Your task to perform on an android device: Go to Amazon Image 0: 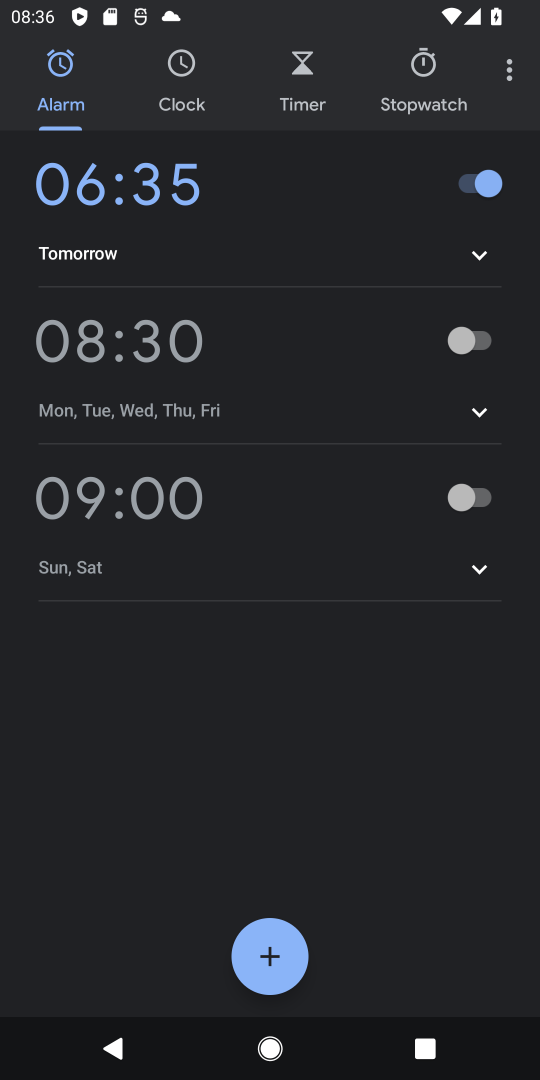
Step 0: press home button
Your task to perform on an android device: Go to Amazon Image 1: 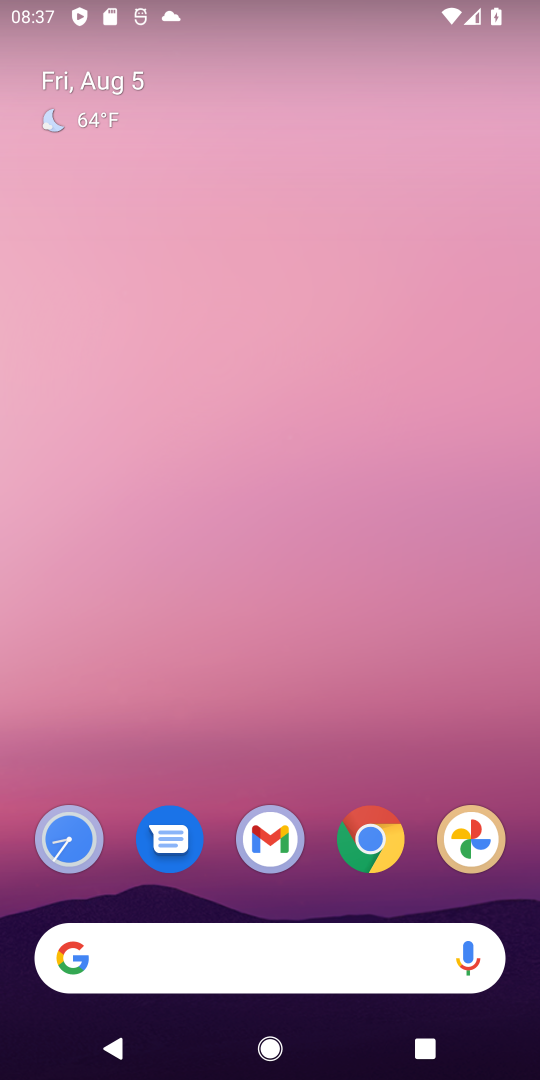
Step 1: drag from (311, 850) to (311, 128)
Your task to perform on an android device: Go to Amazon Image 2: 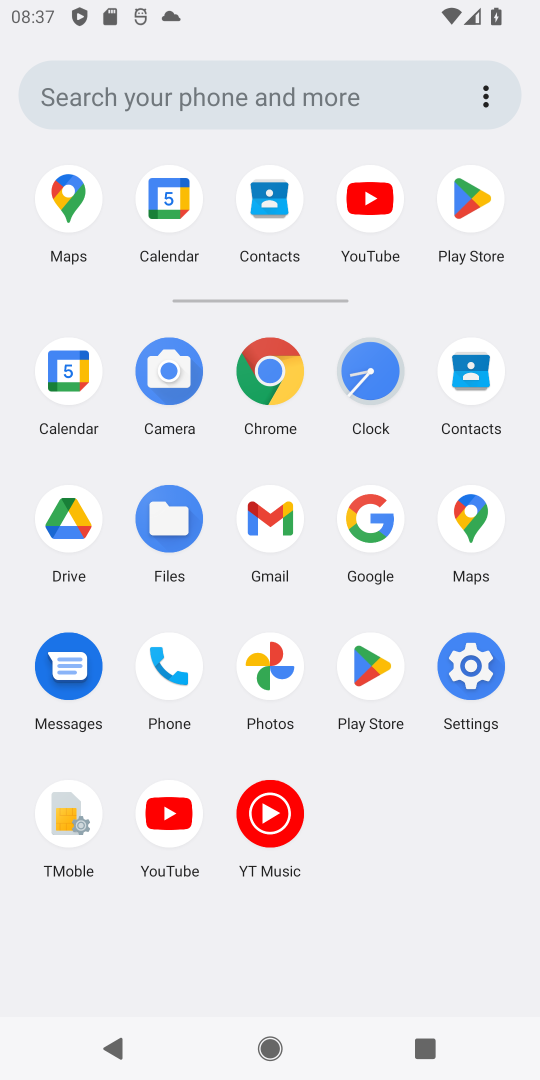
Step 2: click (268, 376)
Your task to perform on an android device: Go to Amazon Image 3: 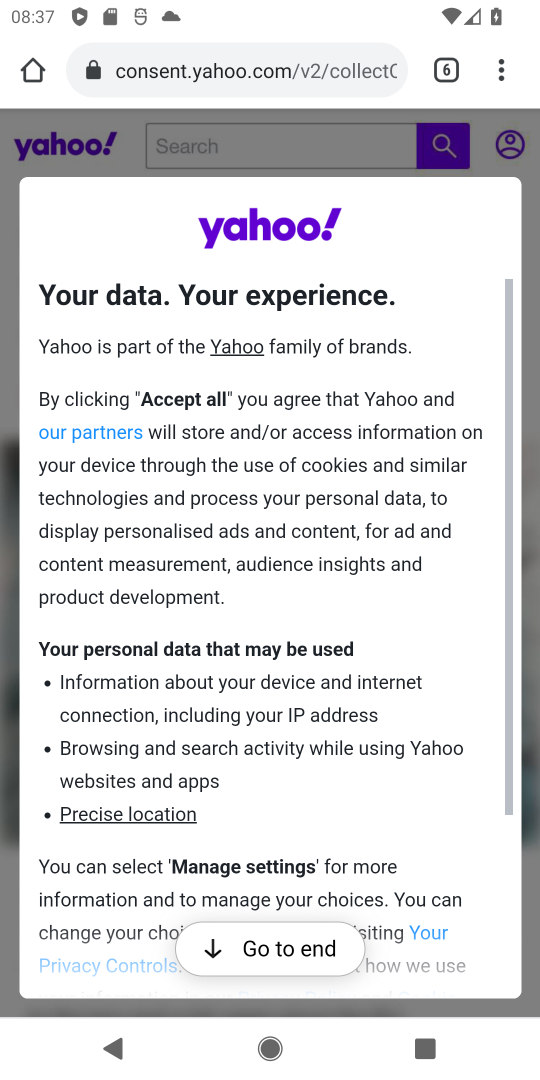
Step 3: click (495, 75)
Your task to perform on an android device: Go to Amazon Image 4: 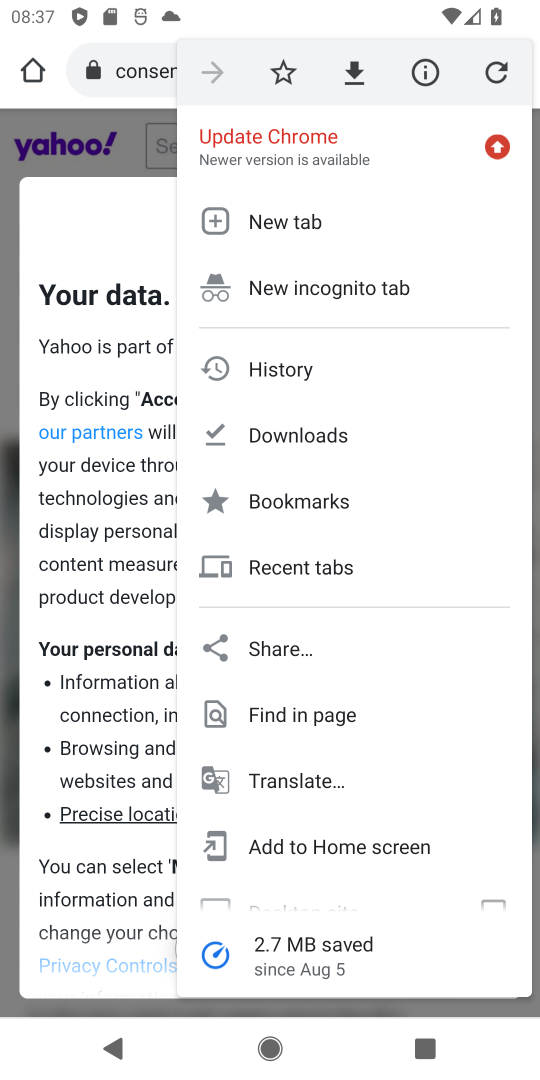
Step 4: click (279, 220)
Your task to perform on an android device: Go to Amazon Image 5: 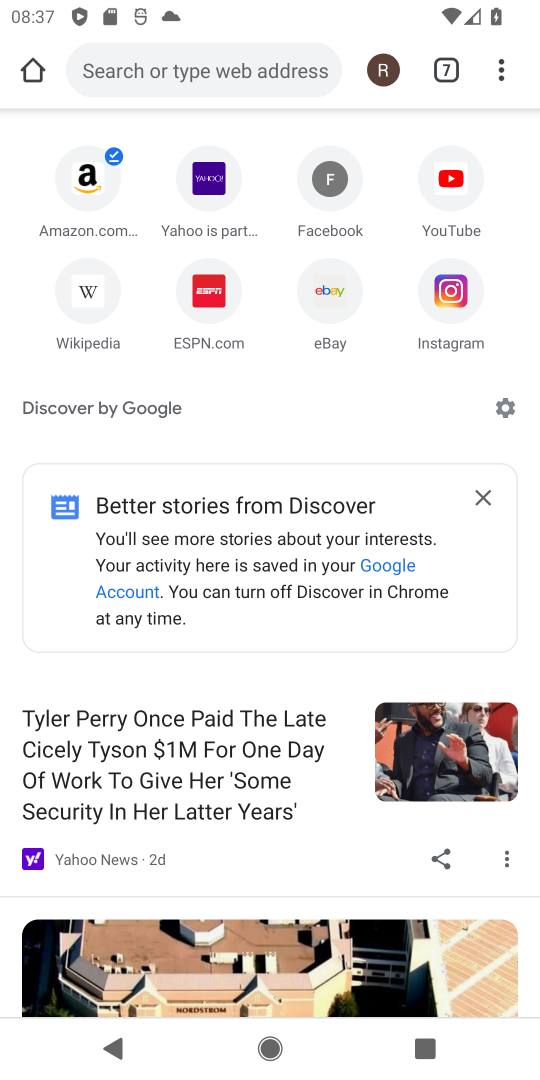
Step 5: click (82, 178)
Your task to perform on an android device: Go to Amazon Image 6: 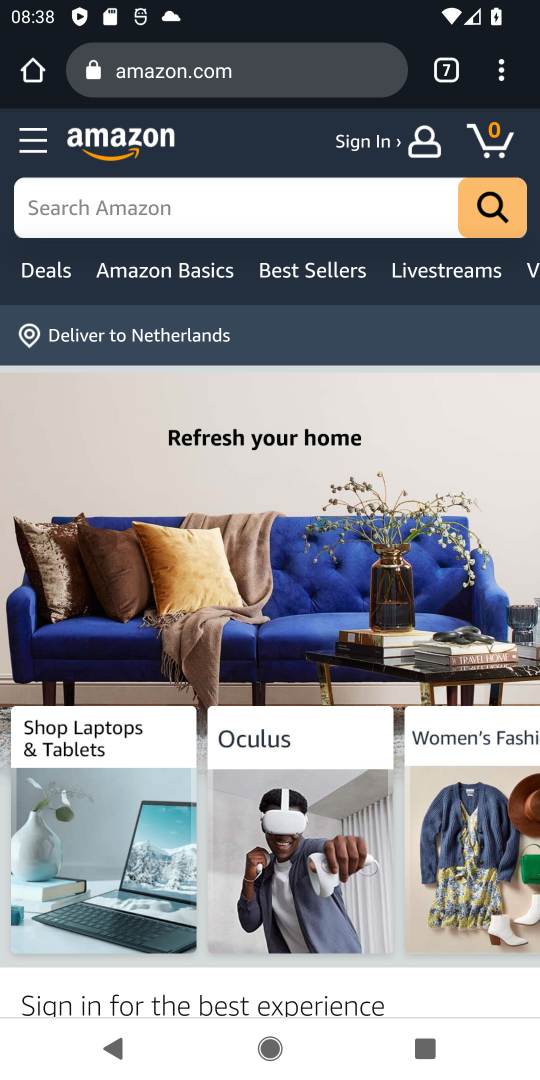
Step 6: task complete